Your task to perform on an android device: Open Maps and search for coffee Image 0: 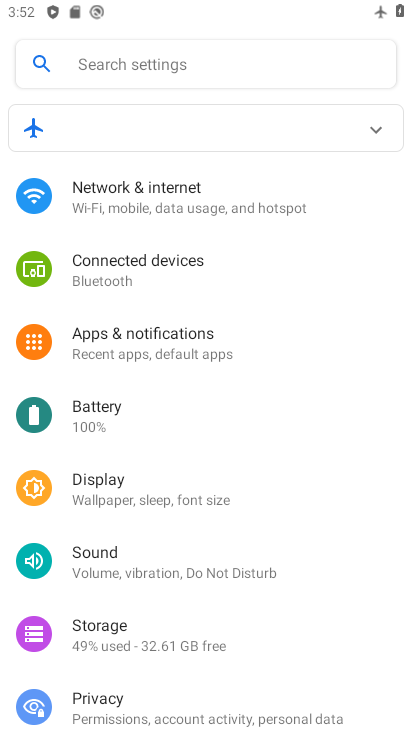
Step 0: press home button
Your task to perform on an android device: Open Maps and search for coffee Image 1: 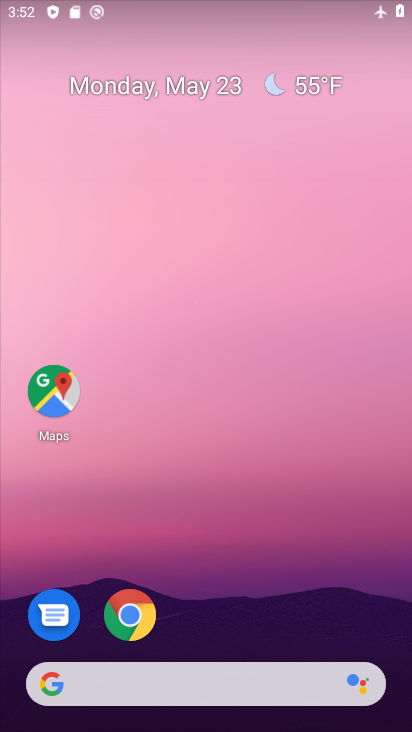
Step 1: drag from (374, 623) to (385, 195)
Your task to perform on an android device: Open Maps and search for coffee Image 2: 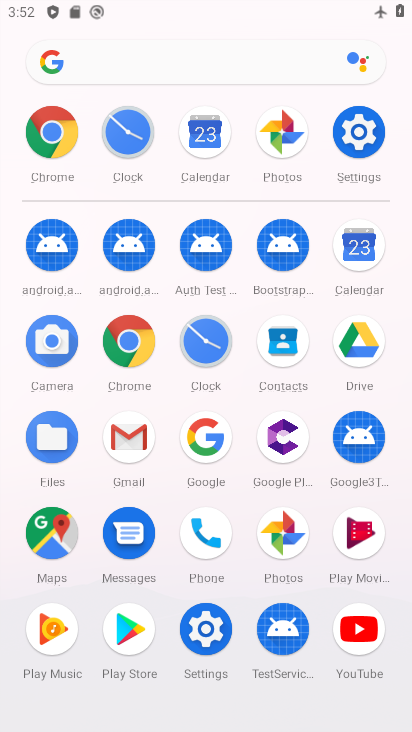
Step 2: click (54, 539)
Your task to perform on an android device: Open Maps and search for coffee Image 3: 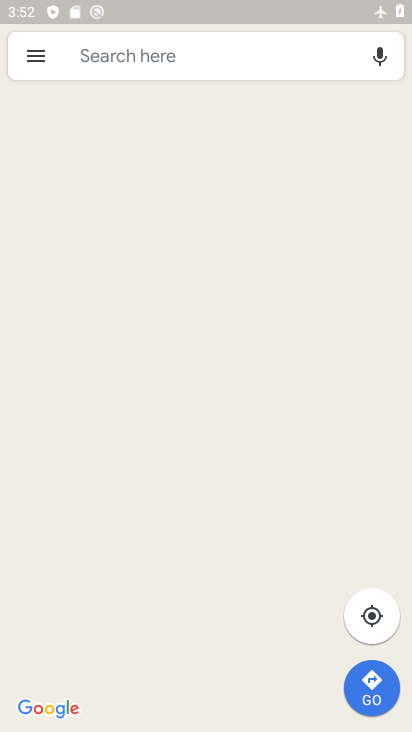
Step 3: click (167, 57)
Your task to perform on an android device: Open Maps and search for coffee Image 4: 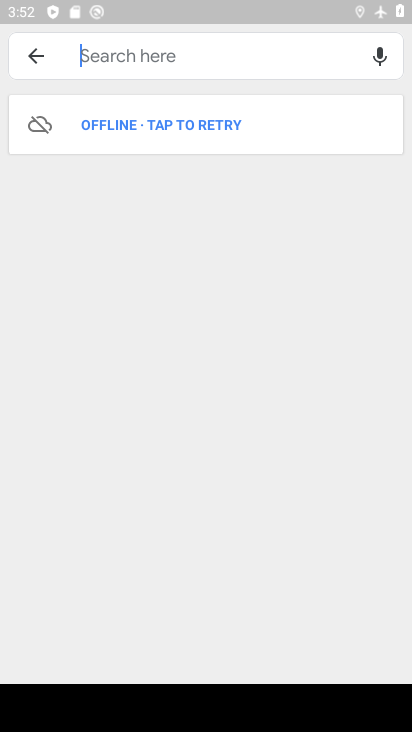
Step 4: type "coffee"
Your task to perform on an android device: Open Maps and search for coffee Image 5: 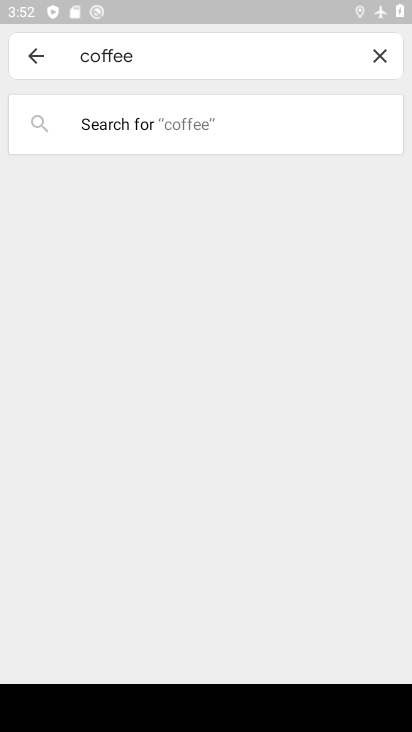
Step 5: task complete